Your task to perform on an android device: Show me popular games on the Play Store Image 0: 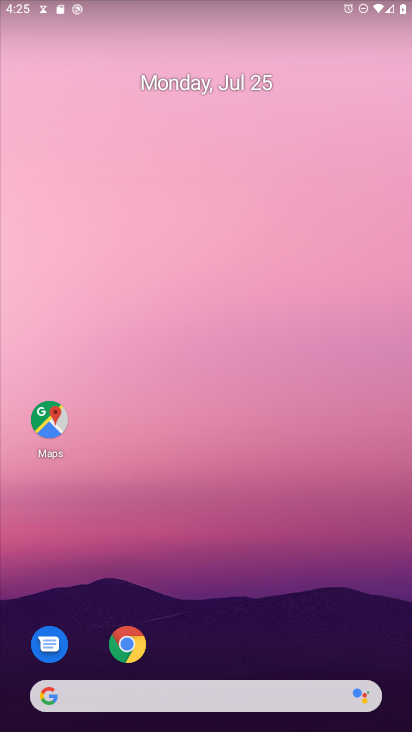
Step 0: press home button
Your task to perform on an android device: Show me popular games on the Play Store Image 1: 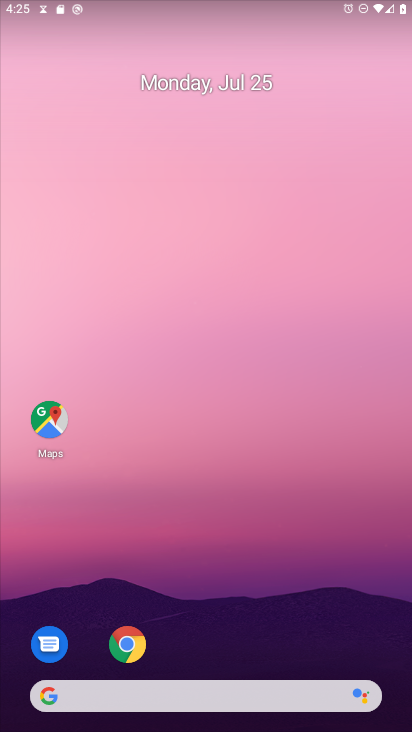
Step 1: drag from (252, 623) to (258, 176)
Your task to perform on an android device: Show me popular games on the Play Store Image 2: 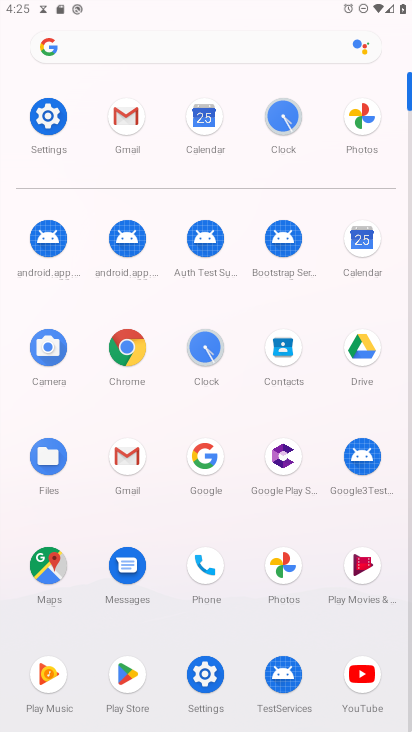
Step 2: click (127, 691)
Your task to perform on an android device: Show me popular games on the Play Store Image 3: 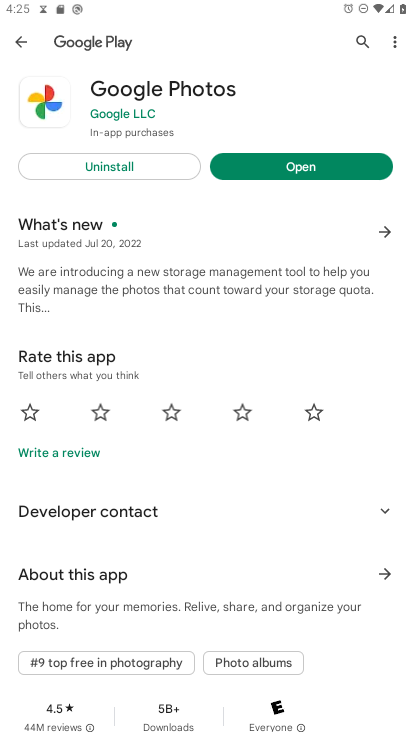
Step 3: click (17, 38)
Your task to perform on an android device: Show me popular games on the Play Store Image 4: 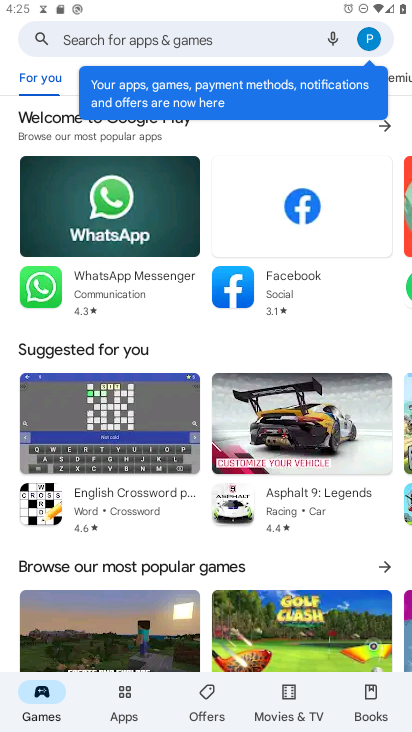
Step 4: click (386, 566)
Your task to perform on an android device: Show me popular games on the Play Store Image 5: 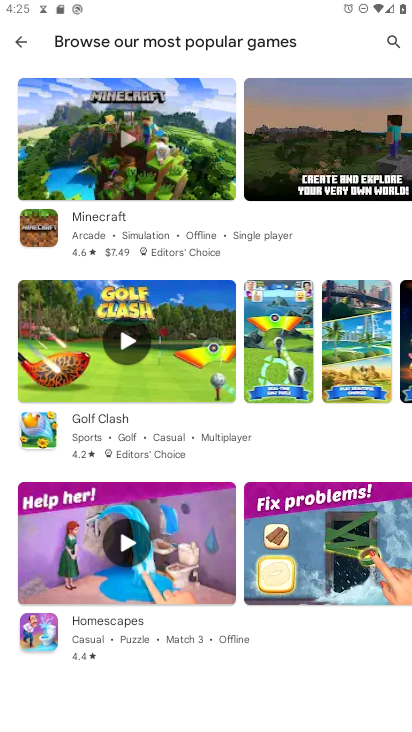
Step 5: task complete